Your task to perform on an android device: turn pop-ups on in chrome Image 0: 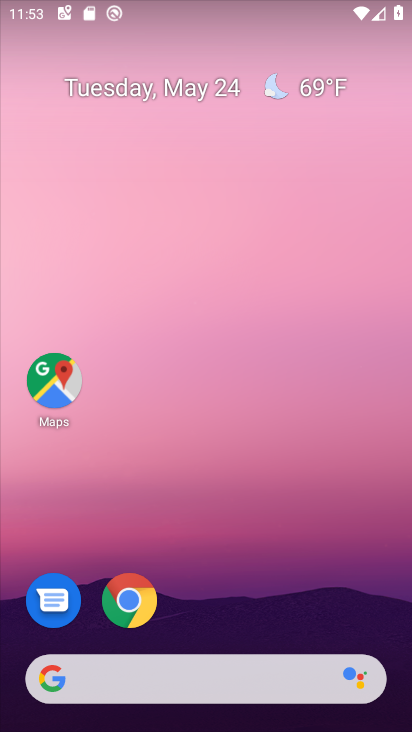
Step 0: drag from (363, 594) to (379, 166)
Your task to perform on an android device: turn pop-ups on in chrome Image 1: 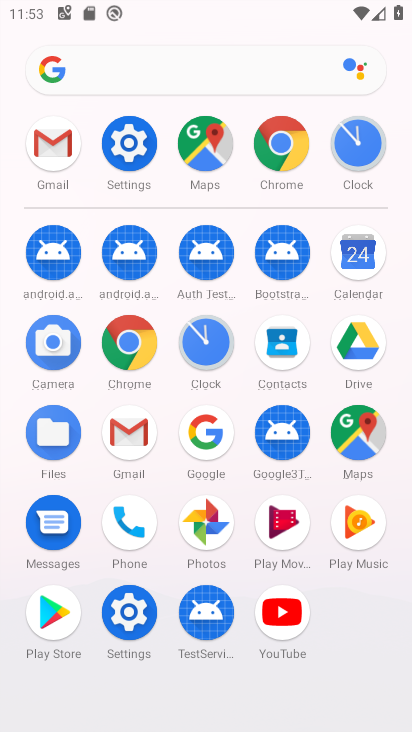
Step 1: click (147, 359)
Your task to perform on an android device: turn pop-ups on in chrome Image 2: 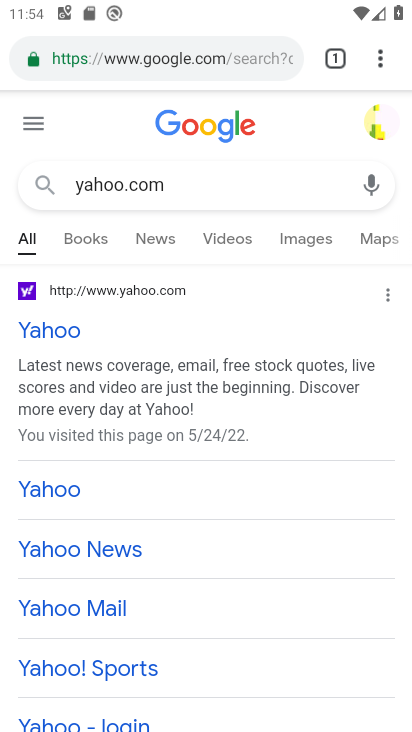
Step 2: click (381, 63)
Your task to perform on an android device: turn pop-ups on in chrome Image 3: 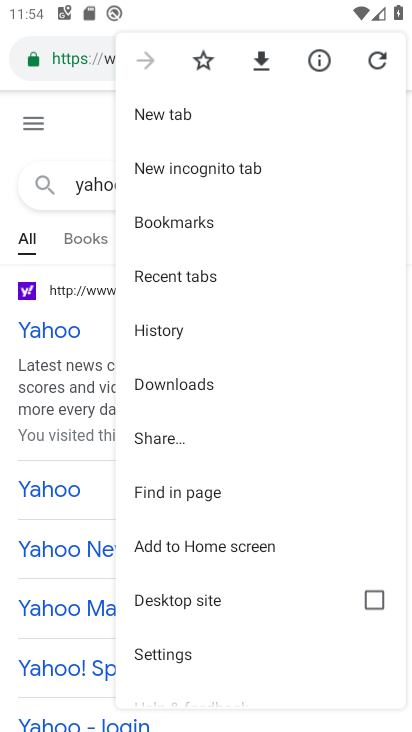
Step 3: click (252, 653)
Your task to perform on an android device: turn pop-ups on in chrome Image 4: 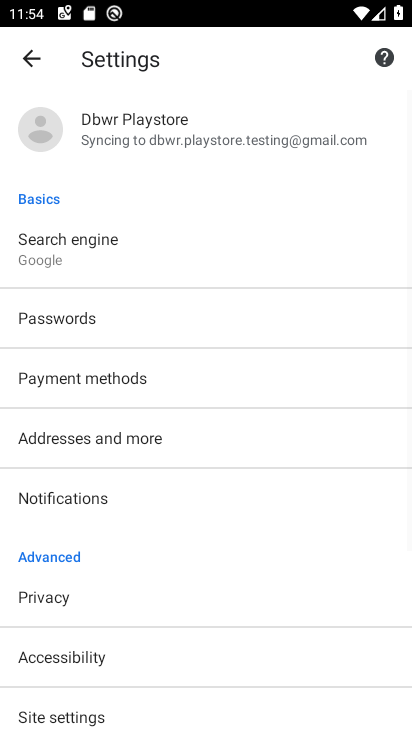
Step 4: drag from (257, 639) to (264, 562)
Your task to perform on an android device: turn pop-ups on in chrome Image 5: 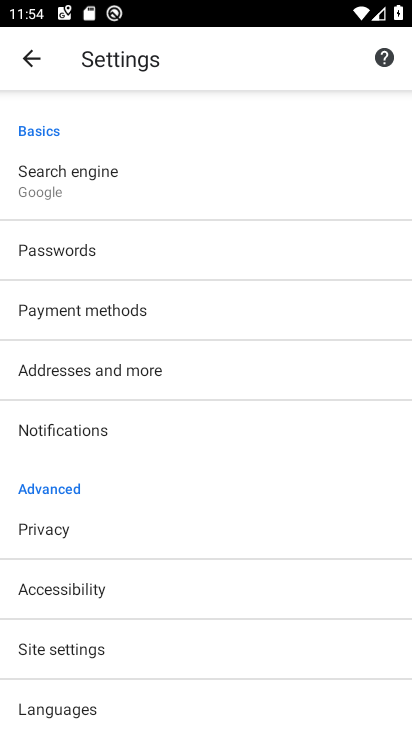
Step 5: drag from (291, 631) to (314, 544)
Your task to perform on an android device: turn pop-ups on in chrome Image 6: 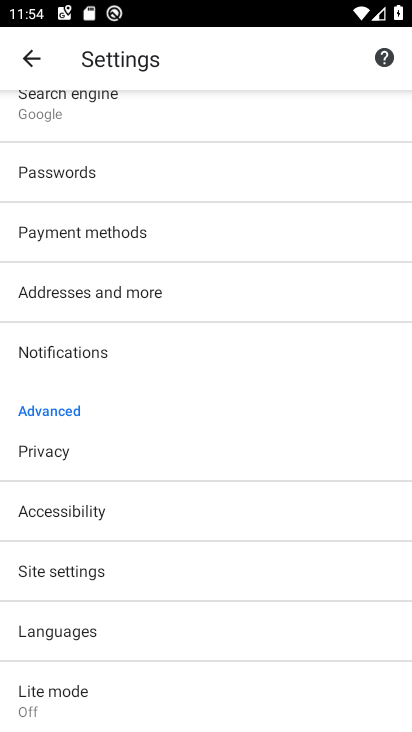
Step 6: drag from (332, 652) to (307, 544)
Your task to perform on an android device: turn pop-ups on in chrome Image 7: 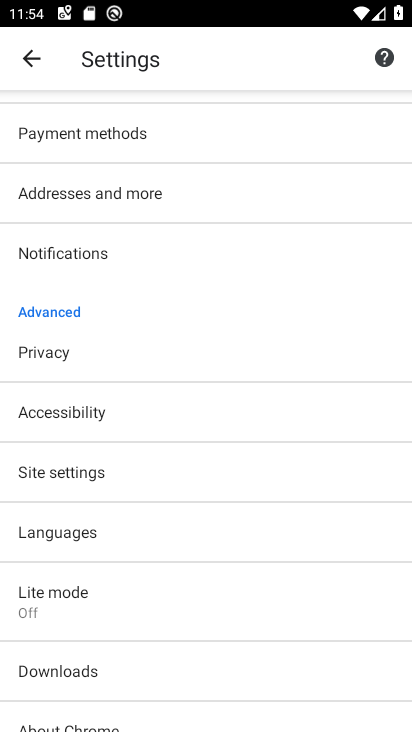
Step 7: drag from (308, 663) to (295, 506)
Your task to perform on an android device: turn pop-ups on in chrome Image 8: 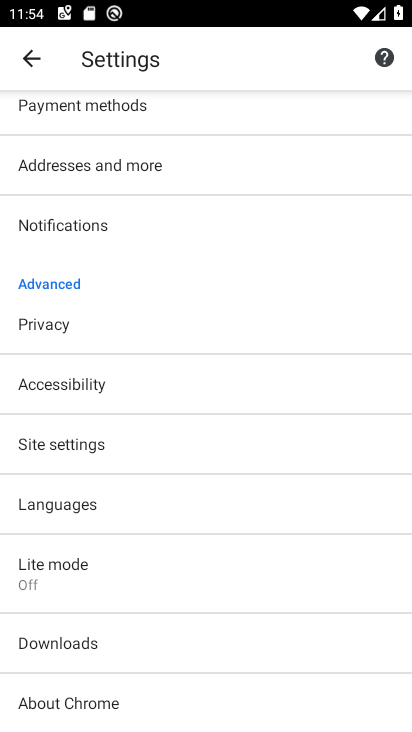
Step 8: click (236, 437)
Your task to perform on an android device: turn pop-ups on in chrome Image 9: 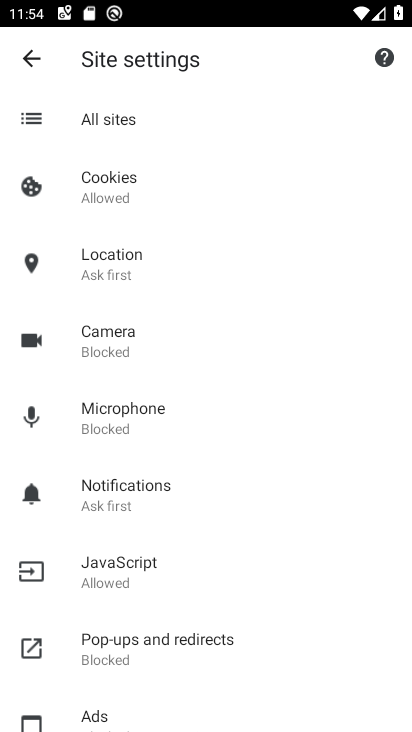
Step 9: drag from (305, 601) to (334, 501)
Your task to perform on an android device: turn pop-ups on in chrome Image 10: 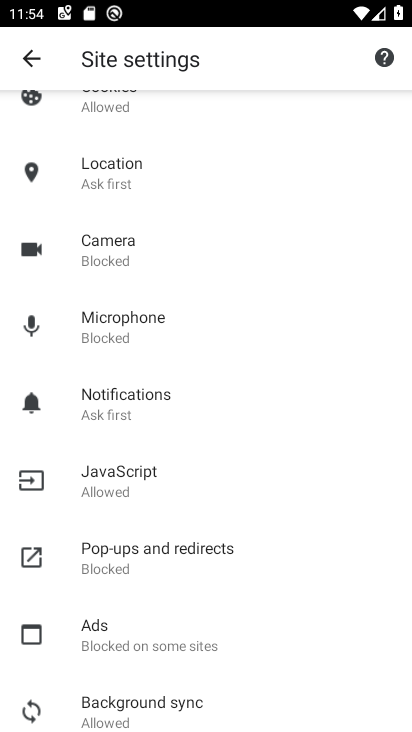
Step 10: drag from (354, 617) to (364, 505)
Your task to perform on an android device: turn pop-ups on in chrome Image 11: 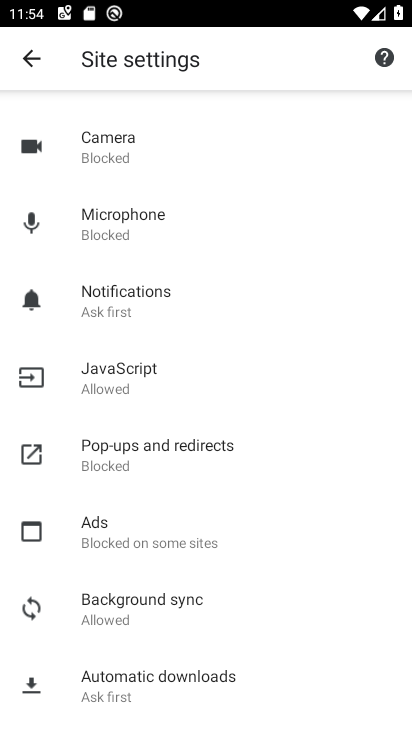
Step 11: drag from (341, 601) to (324, 516)
Your task to perform on an android device: turn pop-ups on in chrome Image 12: 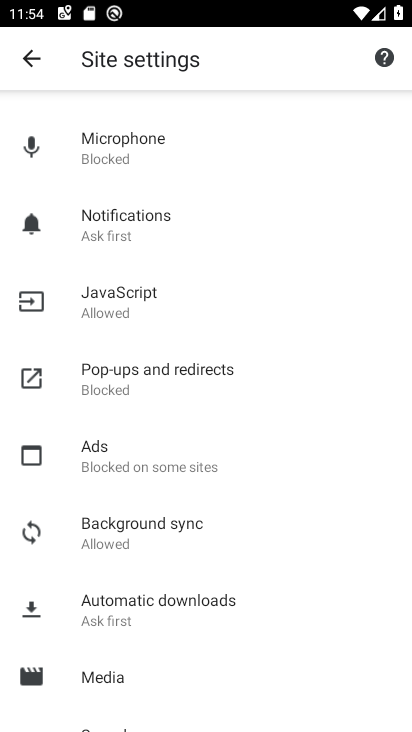
Step 12: click (171, 391)
Your task to perform on an android device: turn pop-ups on in chrome Image 13: 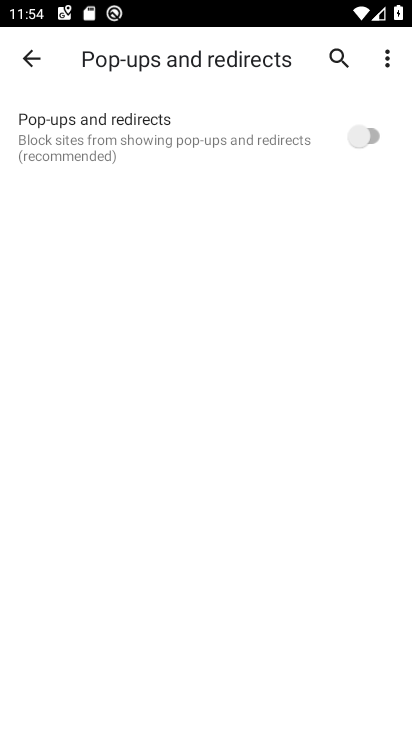
Step 13: click (372, 130)
Your task to perform on an android device: turn pop-ups on in chrome Image 14: 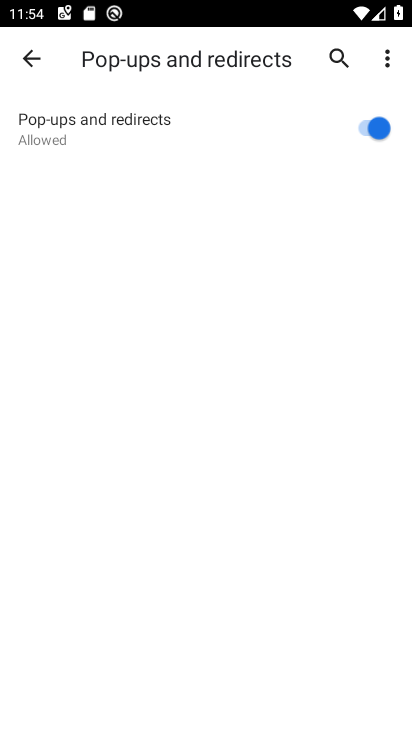
Step 14: task complete